Your task to perform on an android device: open app "PlayWell" (install if not already installed), go to login, and select forgot password Image 0: 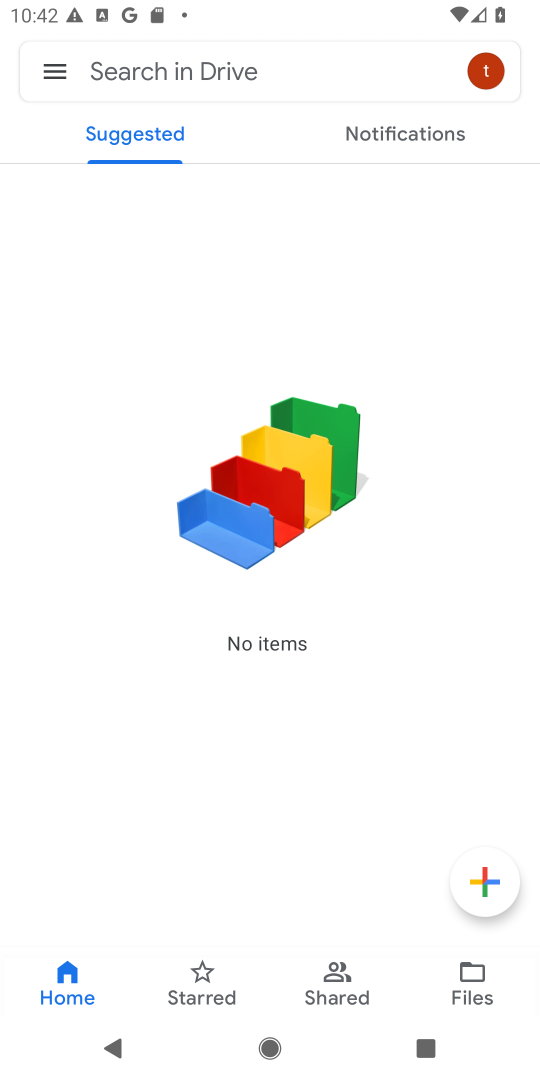
Step 0: press back button
Your task to perform on an android device: open app "PlayWell" (install if not already installed), go to login, and select forgot password Image 1: 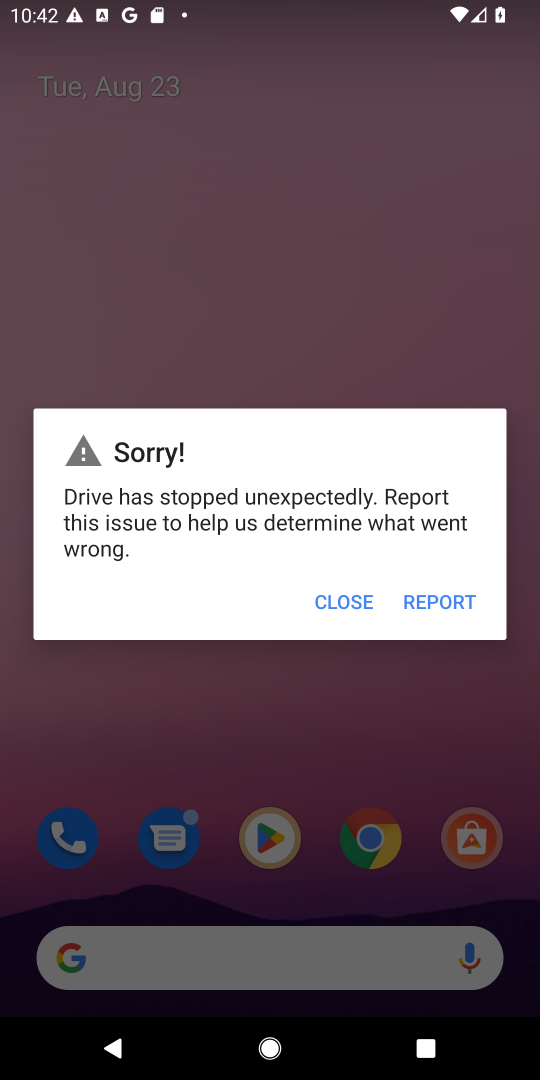
Step 1: click (333, 602)
Your task to perform on an android device: open app "PlayWell" (install if not already installed), go to login, and select forgot password Image 2: 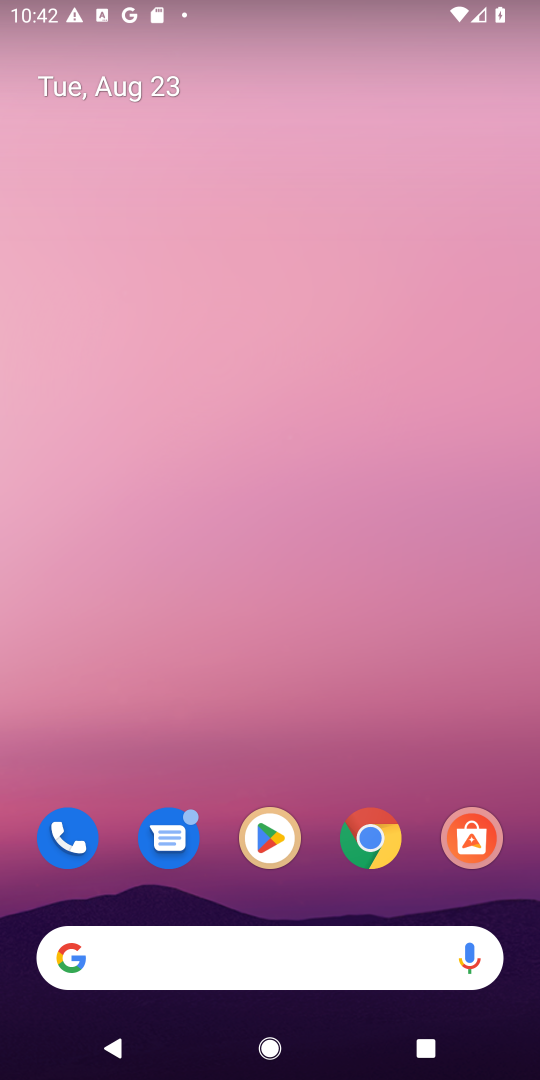
Step 2: click (254, 845)
Your task to perform on an android device: open app "PlayWell" (install if not already installed), go to login, and select forgot password Image 3: 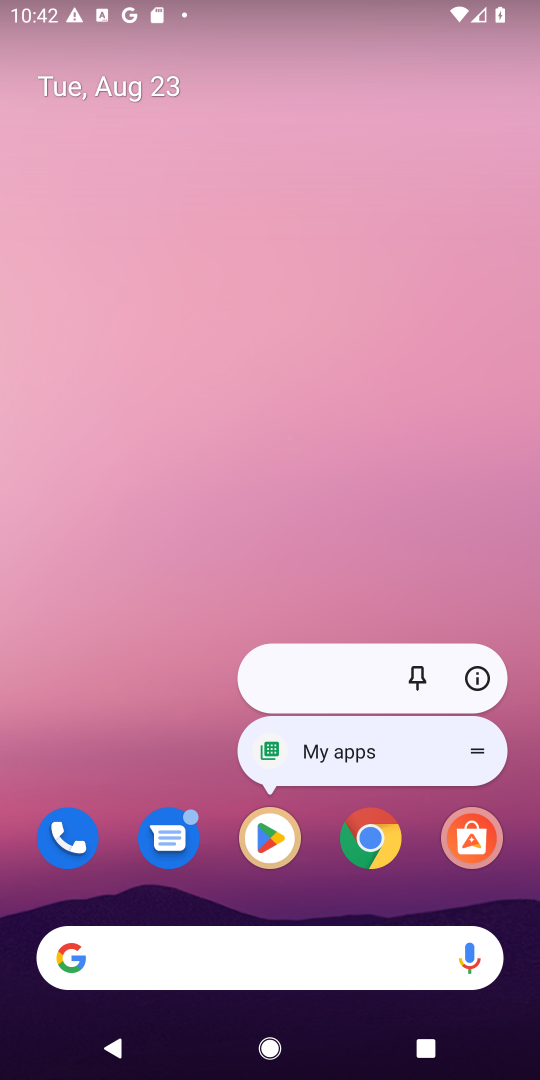
Step 3: click (272, 844)
Your task to perform on an android device: open app "PlayWell" (install if not already installed), go to login, and select forgot password Image 4: 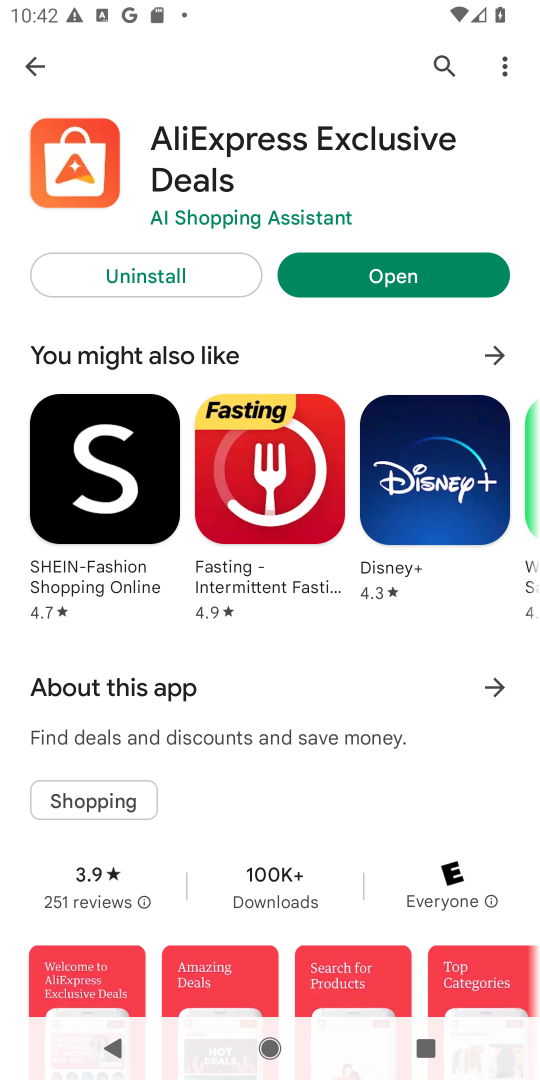
Step 4: click (450, 61)
Your task to perform on an android device: open app "PlayWell" (install if not already installed), go to login, and select forgot password Image 5: 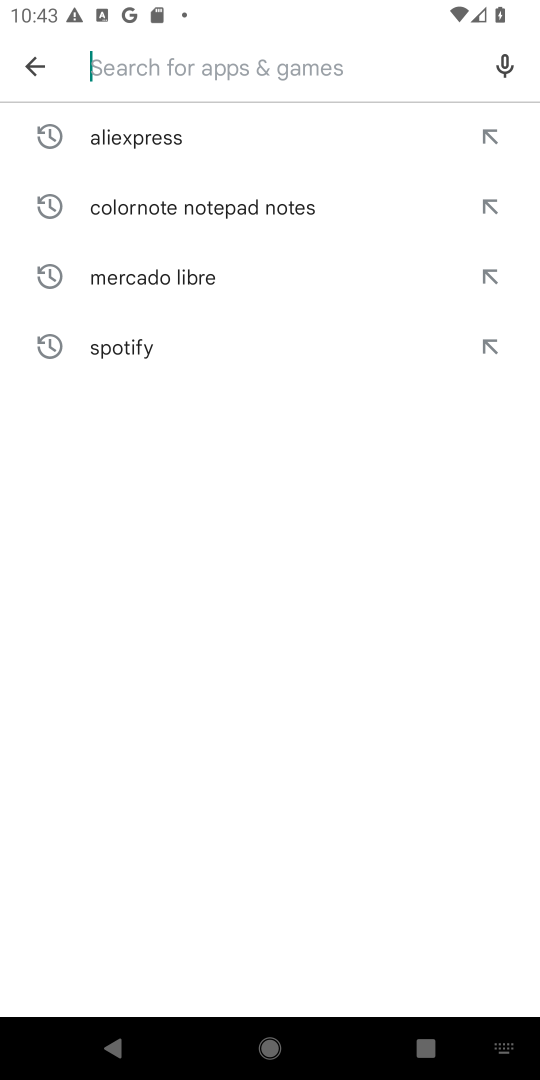
Step 5: type "PlayWell"
Your task to perform on an android device: open app "PlayWell" (install if not already installed), go to login, and select forgot password Image 6: 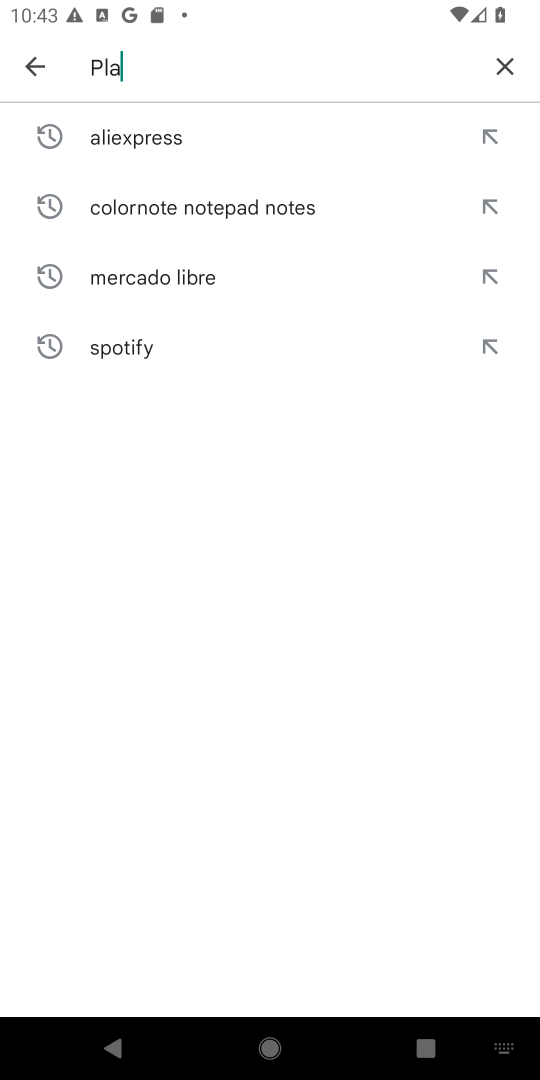
Step 6: type ""
Your task to perform on an android device: open app "PlayWell" (install if not already installed), go to login, and select forgot password Image 7: 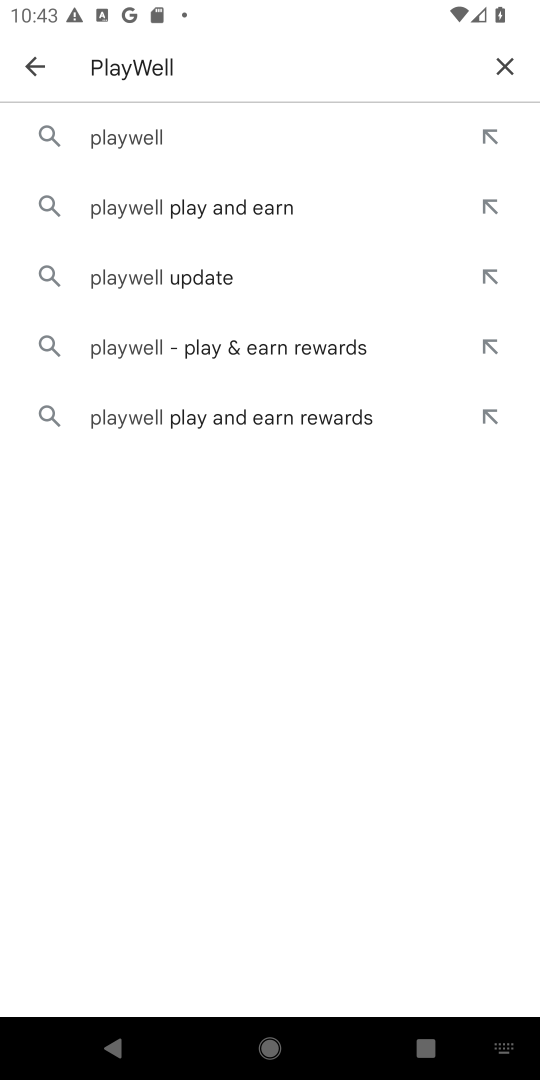
Step 7: click (192, 138)
Your task to perform on an android device: open app "PlayWell" (install if not already installed), go to login, and select forgot password Image 8: 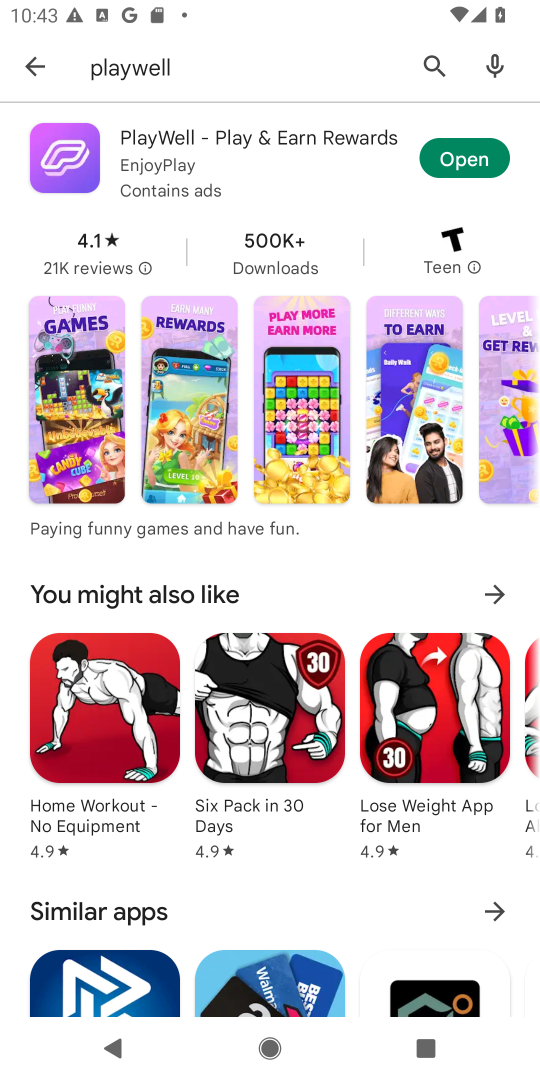
Step 8: click (447, 167)
Your task to perform on an android device: open app "PlayWell" (install if not already installed), go to login, and select forgot password Image 9: 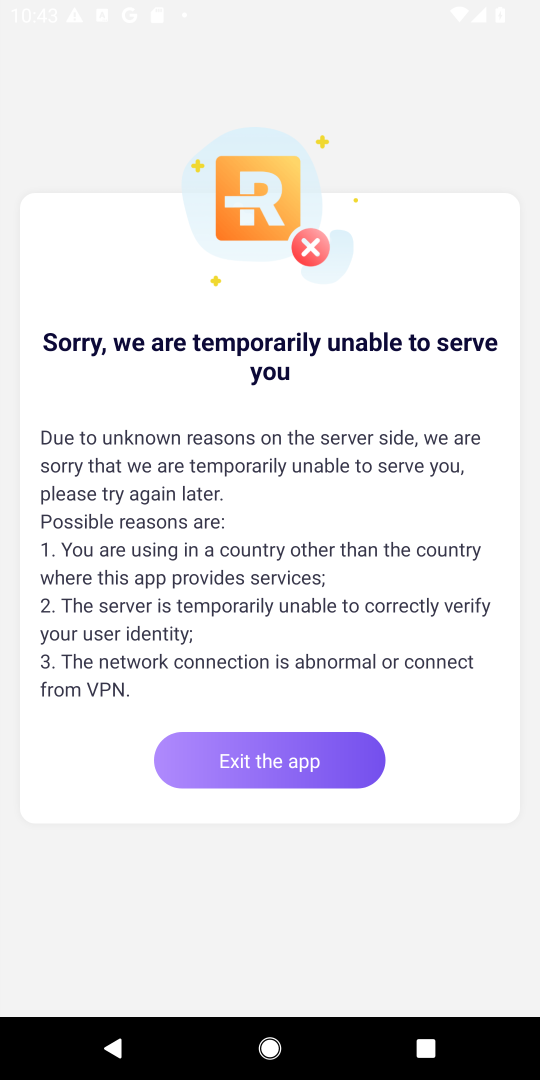
Step 9: task complete